Your task to perform on an android device: Open sound settings Image 0: 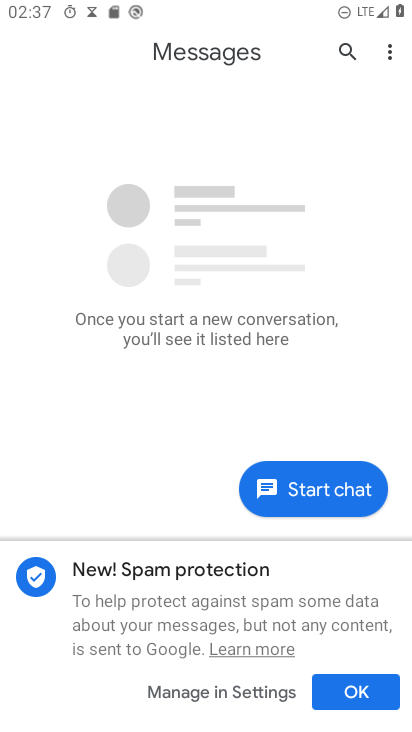
Step 0: press home button
Your task to perform on an android device: Open sound settings Image 1: 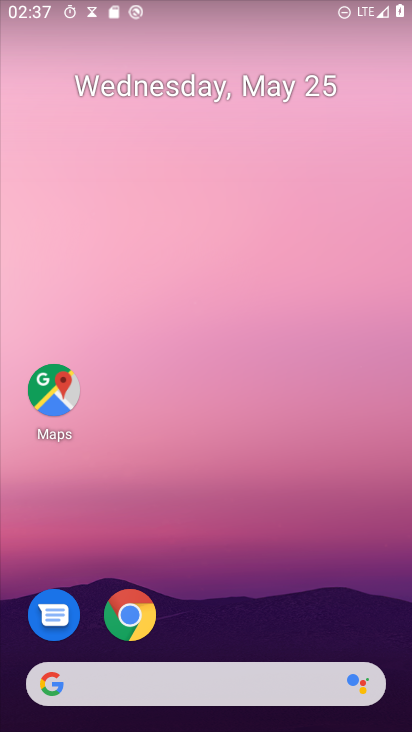
Step 1: drag from (275, 707) to (284, 60)
Your task to perform on an android device: Open sound settings Image 2: 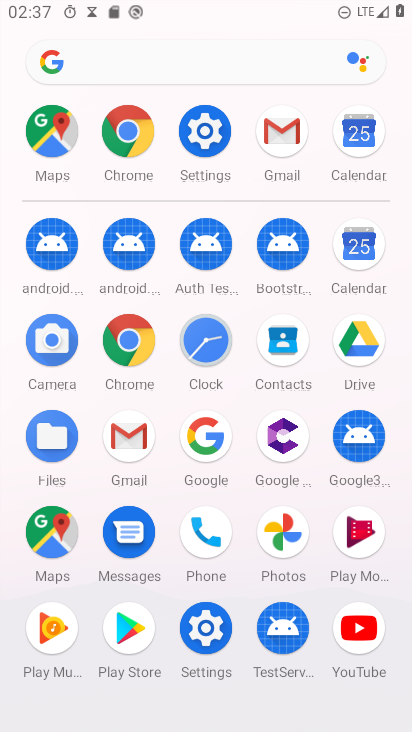
Step 2: click (208, 122)
Your task to perform on an android device: Open sound settings Image 3: 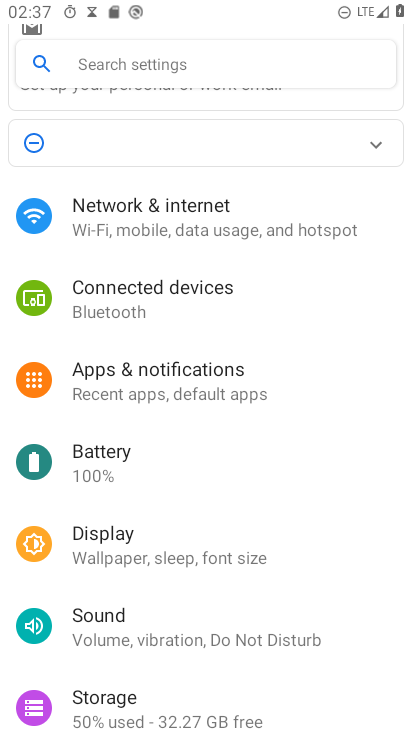
Step 3: click (172, 62)
Your task to perform on an android device: Open sound settings Image 4: 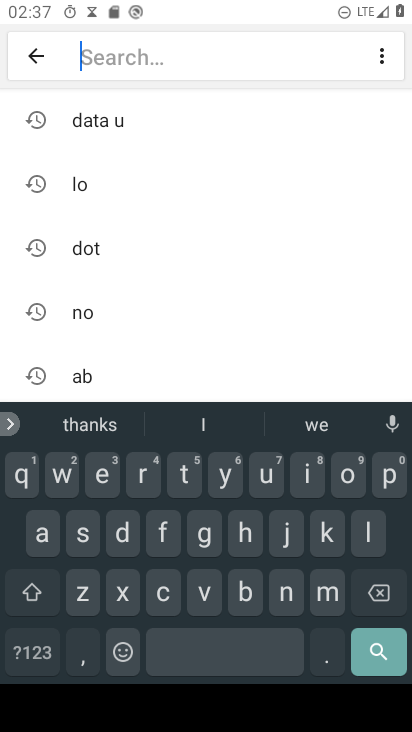
Step 4: click (85, 528)
Your task to perform on an android device: Open sound settings Image 5: 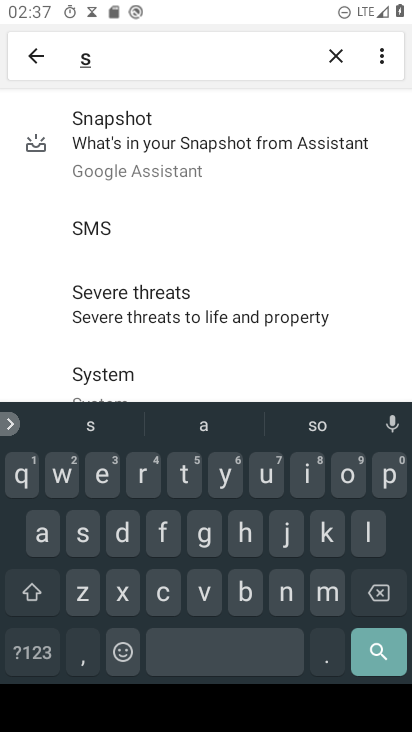
Step 5: click (352, 482)
Your task to perform on an android device: Open sound settings Image 6: 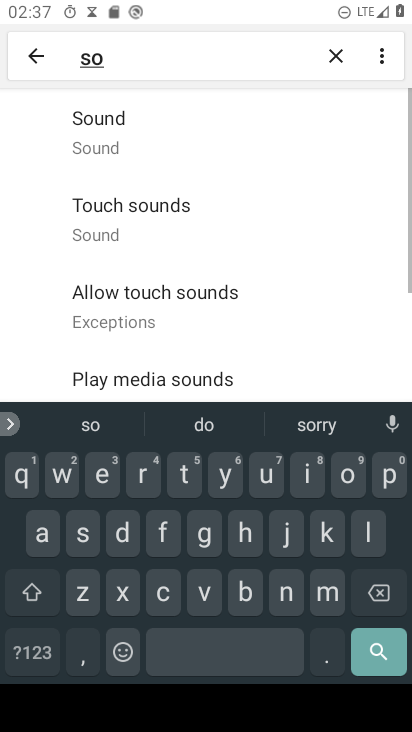
Step 6: click (164, 127)
Your task to perform on an android device: Open sound settings Image 7: 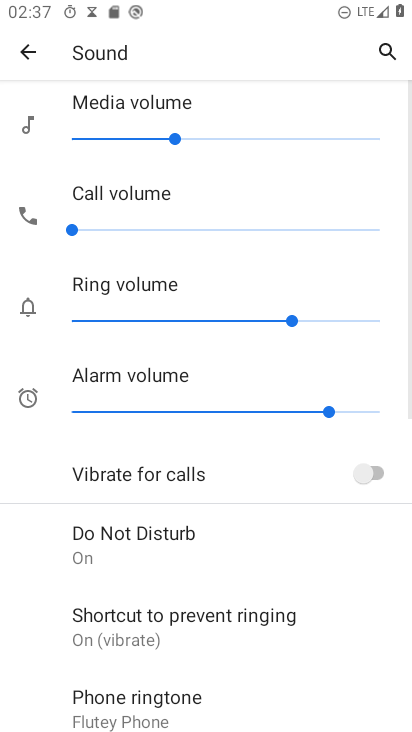
Step 7: task complete